Your task to perform on an android device: Open my contact list Image 0: 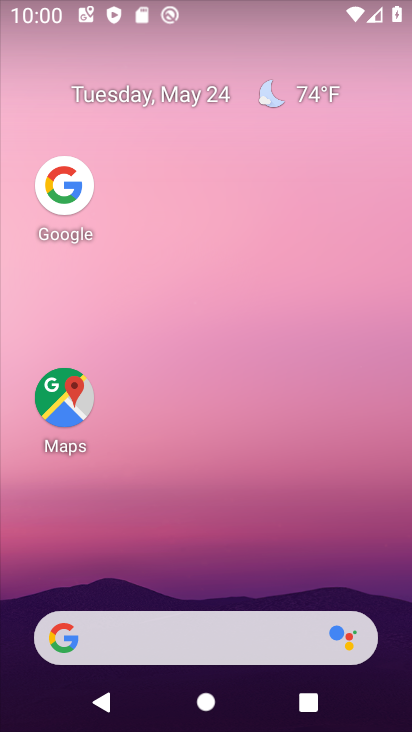
Step 0: drag from (209, 594) to (213, 10)
Your task to perform on an android device: Open my contact list Image 1: 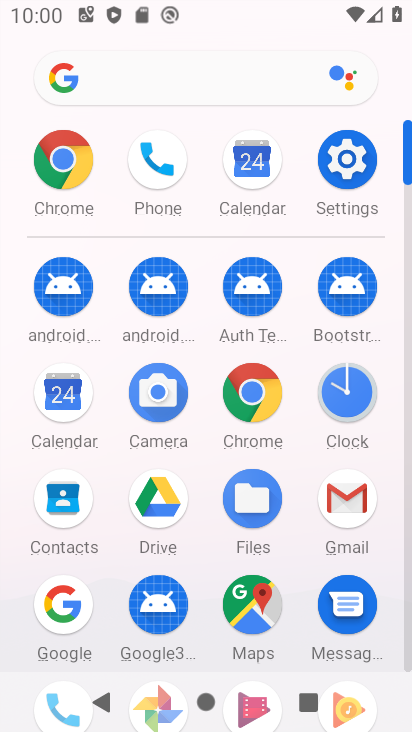
Step 1: click (166, 170)
Your task to perform on an android device: Open my contact list Image 2: 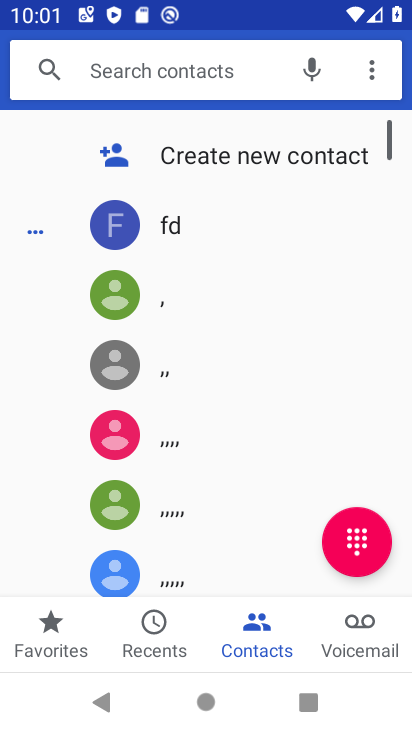
Step 2: task complete